Your task to perform on an android device: change text size in settings app Image 0: 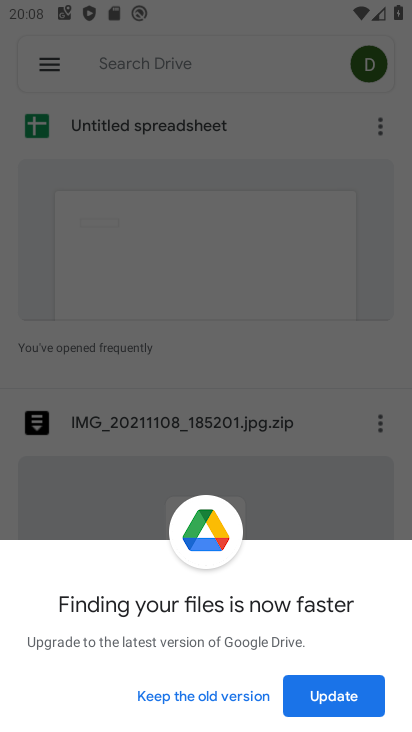
Step 0: press home button
Your task to perform on an android device: change text size in settings app Image 1: 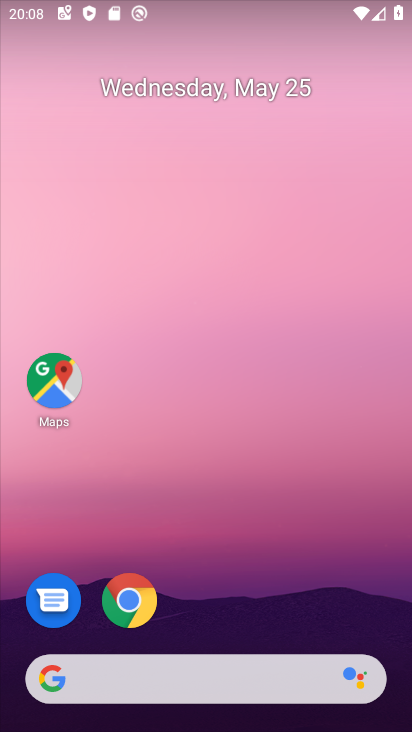
Step 1: drag from (336, 588) to (289, 247)
Your task to perform on an android device: change text size in settings app Image 2: 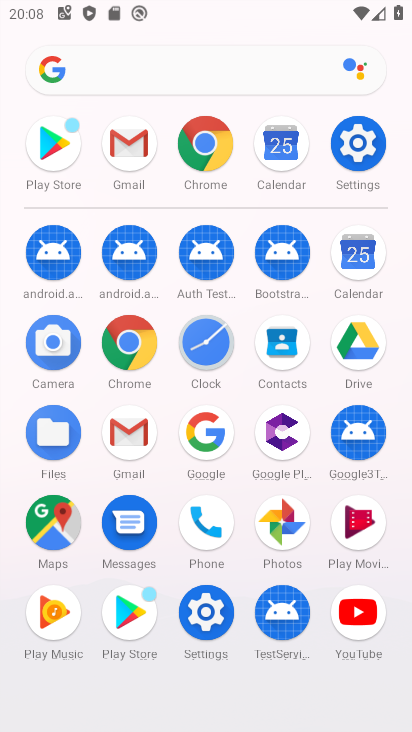
Step 2: click (365, 152)
Your task to perform on an android device: change text size in settings app Image 3: 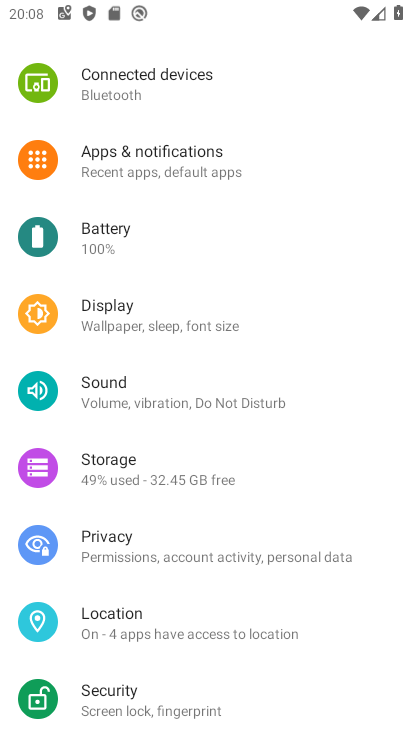
Step 3: click (130, 310)
Your task to perform on an android device: change text size in settings app Image 4: 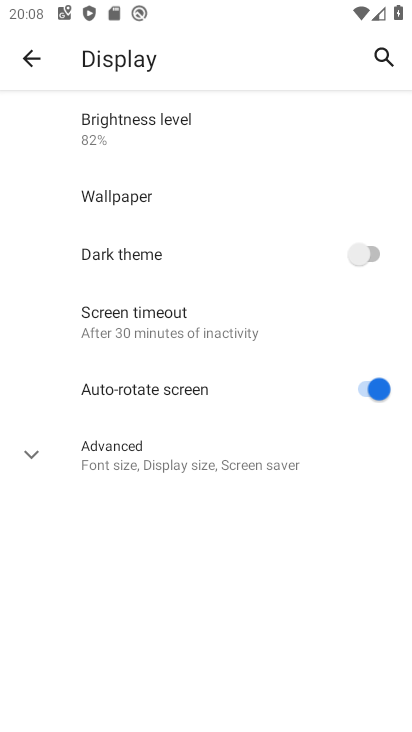
Step 4: click (154, 459)
Your task to perform on an android device: change text size in settings app Image 5: 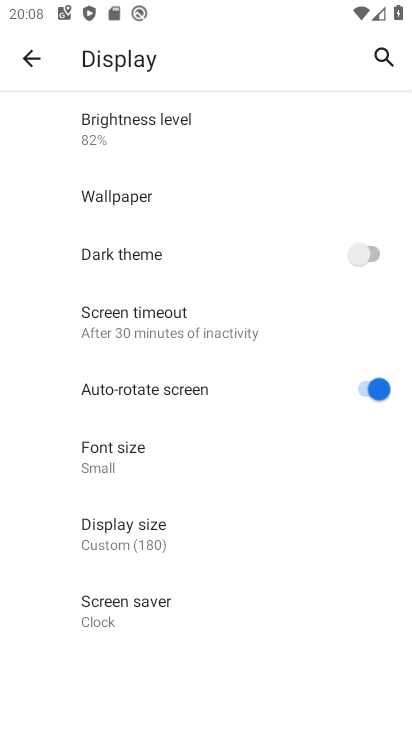
Step 5: click (151, 448)
Your task to perform on an android device: change text size in settings app Image 6: 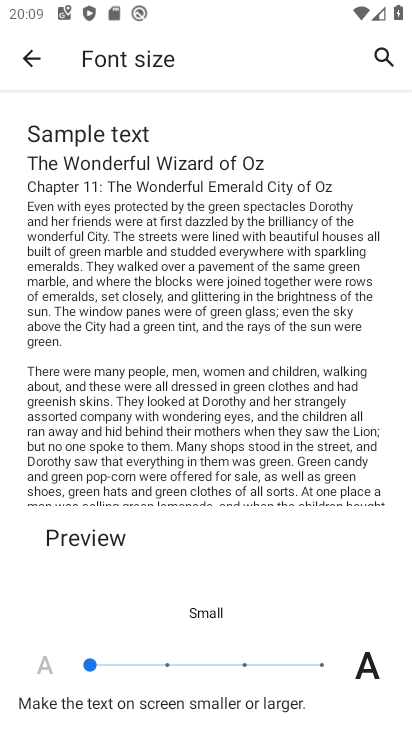
Step 6: drag from (231, 620) to (231, 379)
Your task to perform on an android device: change text size in settings app Image 7: 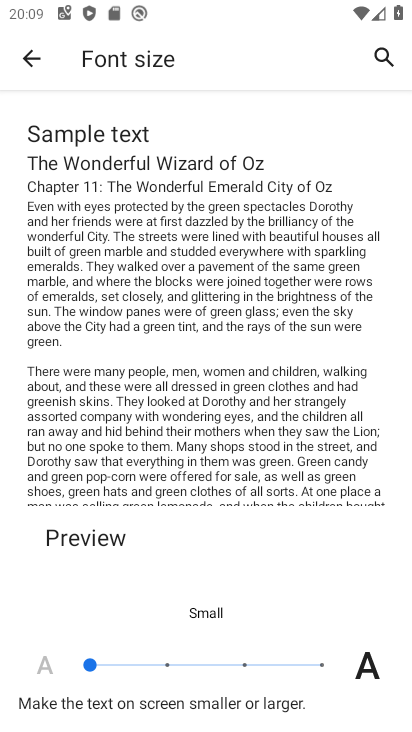
Step 7: drag from (164, 429) to (191, 232)
Your task to perform on an android device: change text size in settings app Image 8: 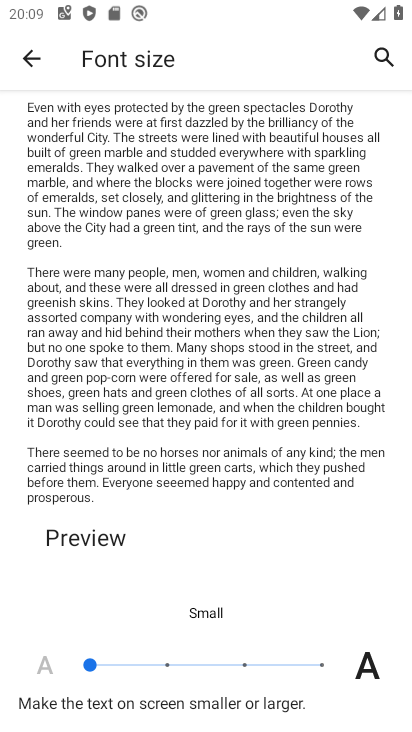
Step 8: click (161, 657)
Your task to perform on an android device: change text size in settings app Image 9: 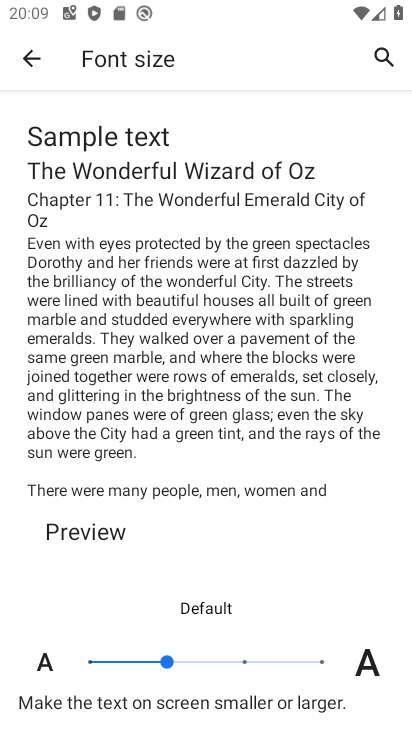
Step 9: task complete